Your task to perform on an android device: turn off wifi Image 0: 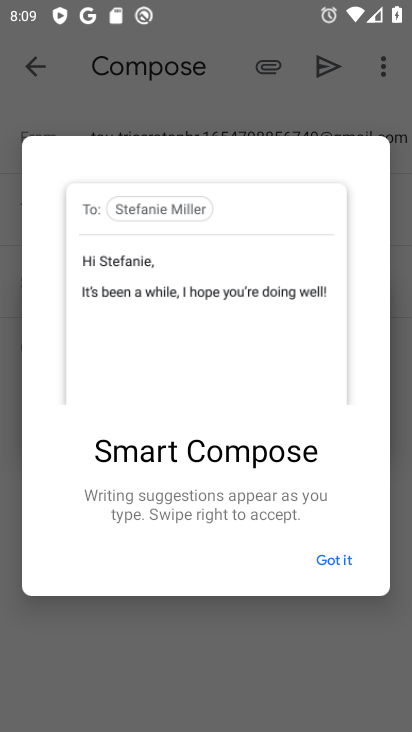
Step 0: press home button
Your task to perform on an android device: turn off wifi Image 1: 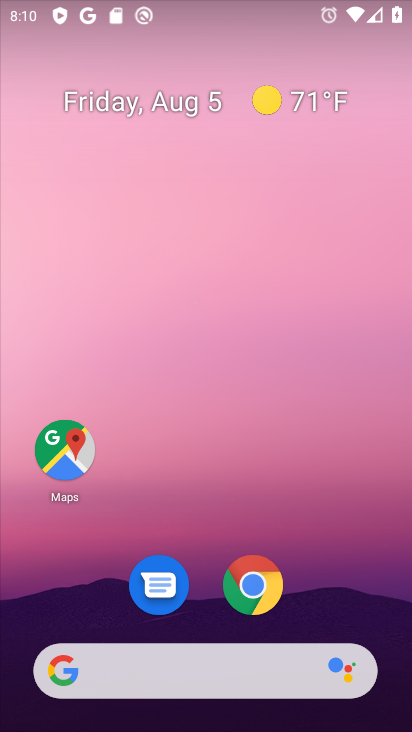
Step 1: drag from (333, 551) to (333, 206)
Your task to perform on an android device: turn off wifi Image 2: 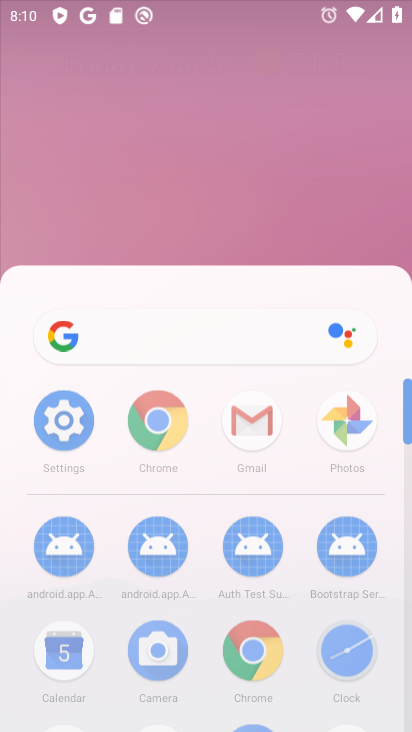
Step 2: click (311, 49)
Your task to perform on an android device: turn off wifi Image 3: 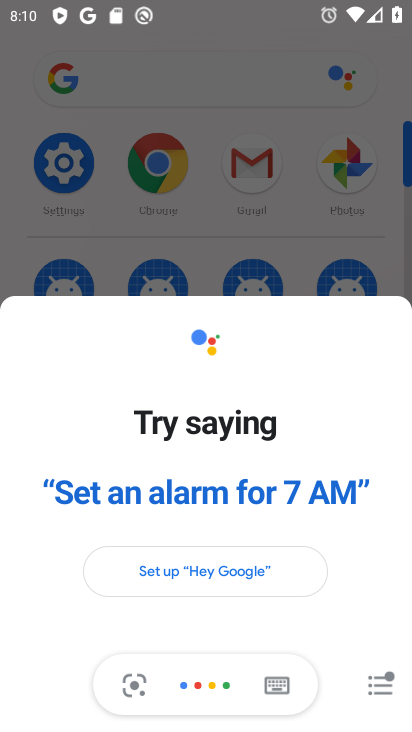
Step 3: click (79, 167)
Your task to perform on an android device: turn off wifi Image 4: 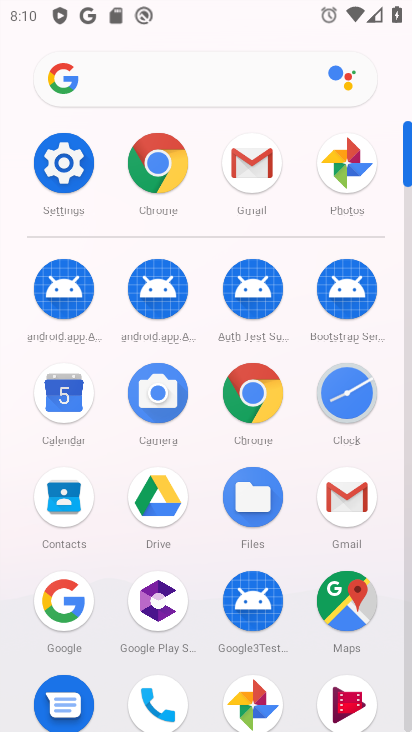
Step 4: click (66, 160)
Your task to perform on an android device: turn off wifi Image 5: 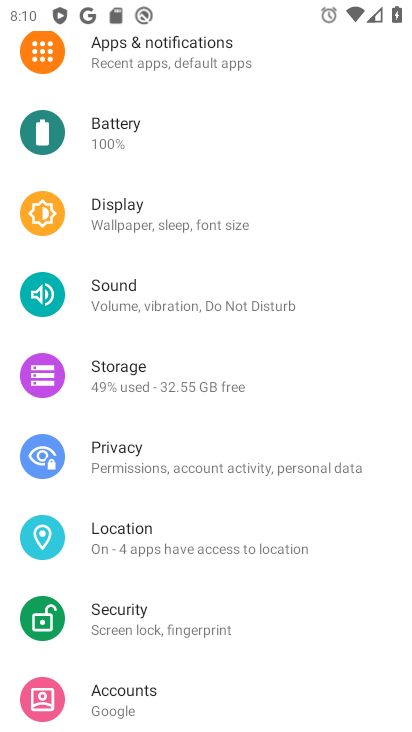
Step 5: drag from (200, 155) to (179, 593)
Your task to perform on an android device: turn off wifi Image 6: 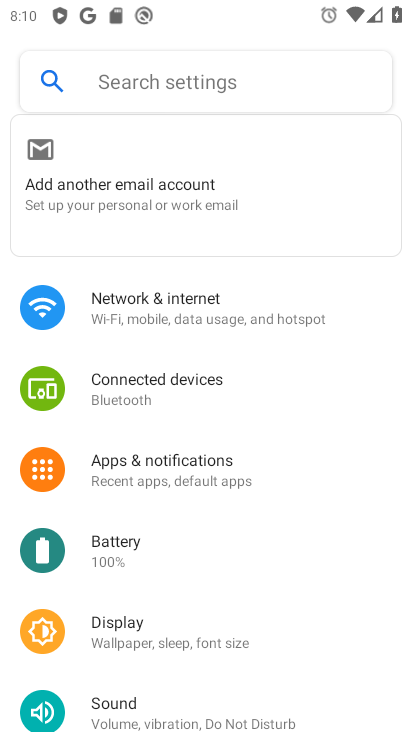
Step 6: click (202, 313)
Your task to perform on an android device: turn off wifi Image 7: 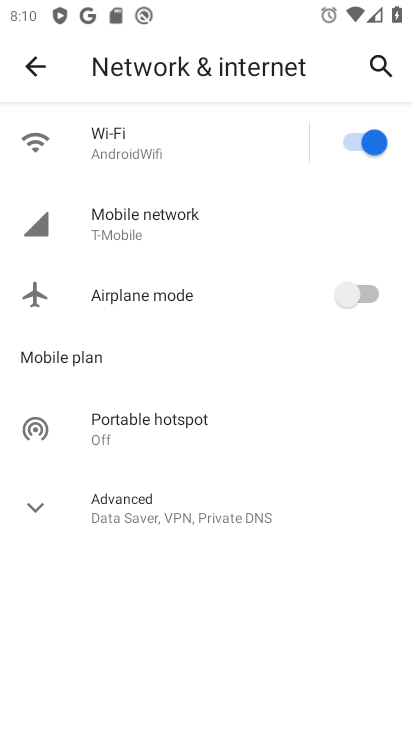
Step 7: click (361, 139)
Your task to perform on an android device: turn off wifi Image 8: 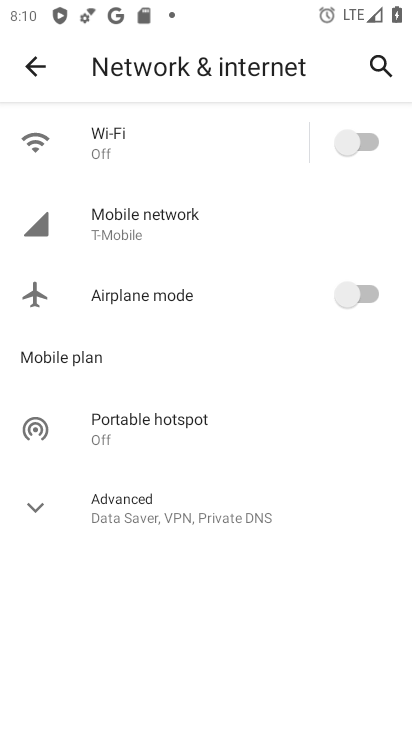
Step 8: task complete